Your task to perform on an android device: Open location settings Image 0: 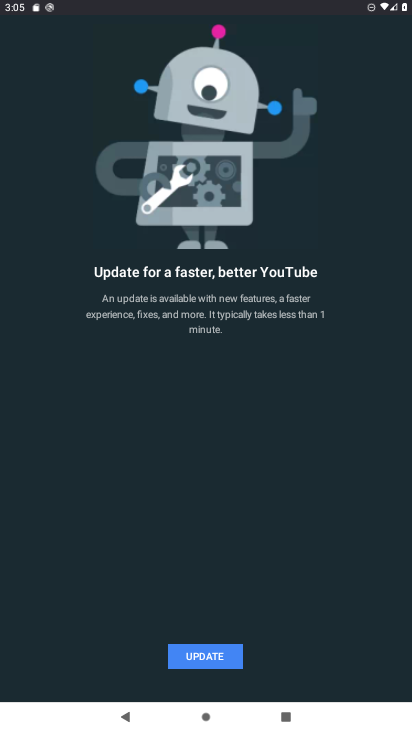
Step 0: press back button
Your task to perform on an android device: Open location settings Image 1: 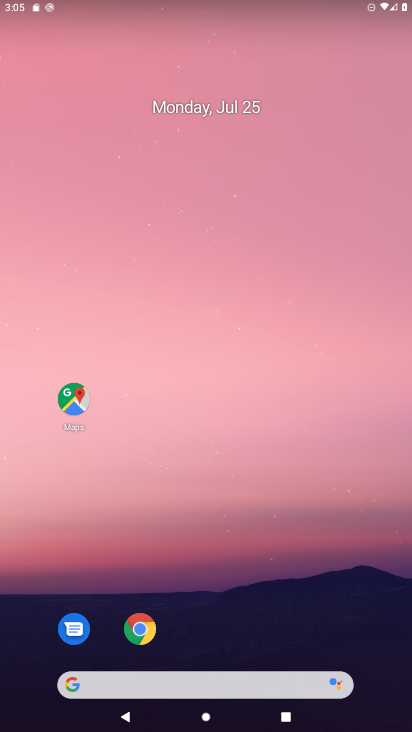
Step 1: drag from (316, 622) to (278, 1)
Your task to perform on an android device: Open location settings Image 2: 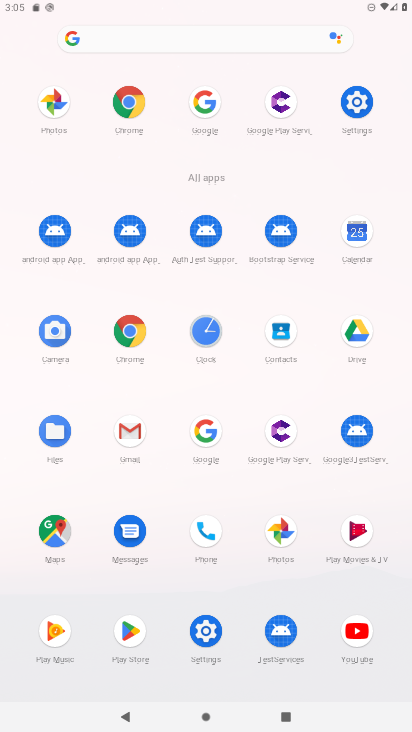
Step 2: click (361, 96)
Your task to perform on an android device: Open location settings Image 3: 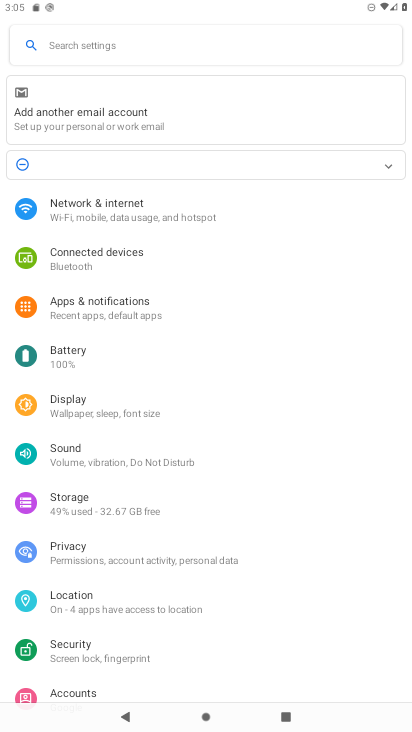
Step 3: click (114, 594)
Your task to perform on an android device: Open location settings Image 4: 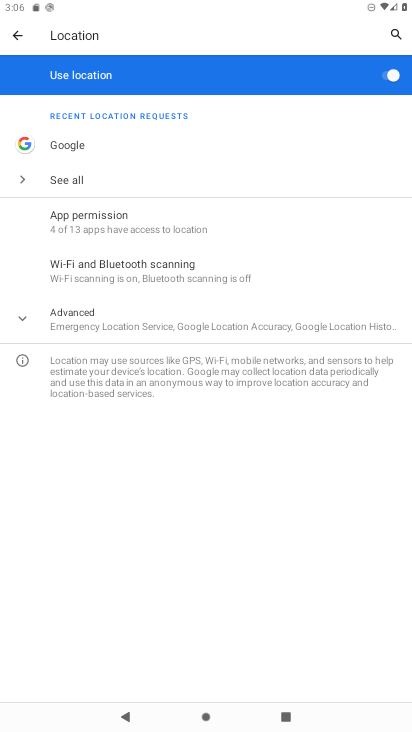
Step 4: task complete